Your task to perform on an android device: open chrome and create a bookmark for the current page Image 0: 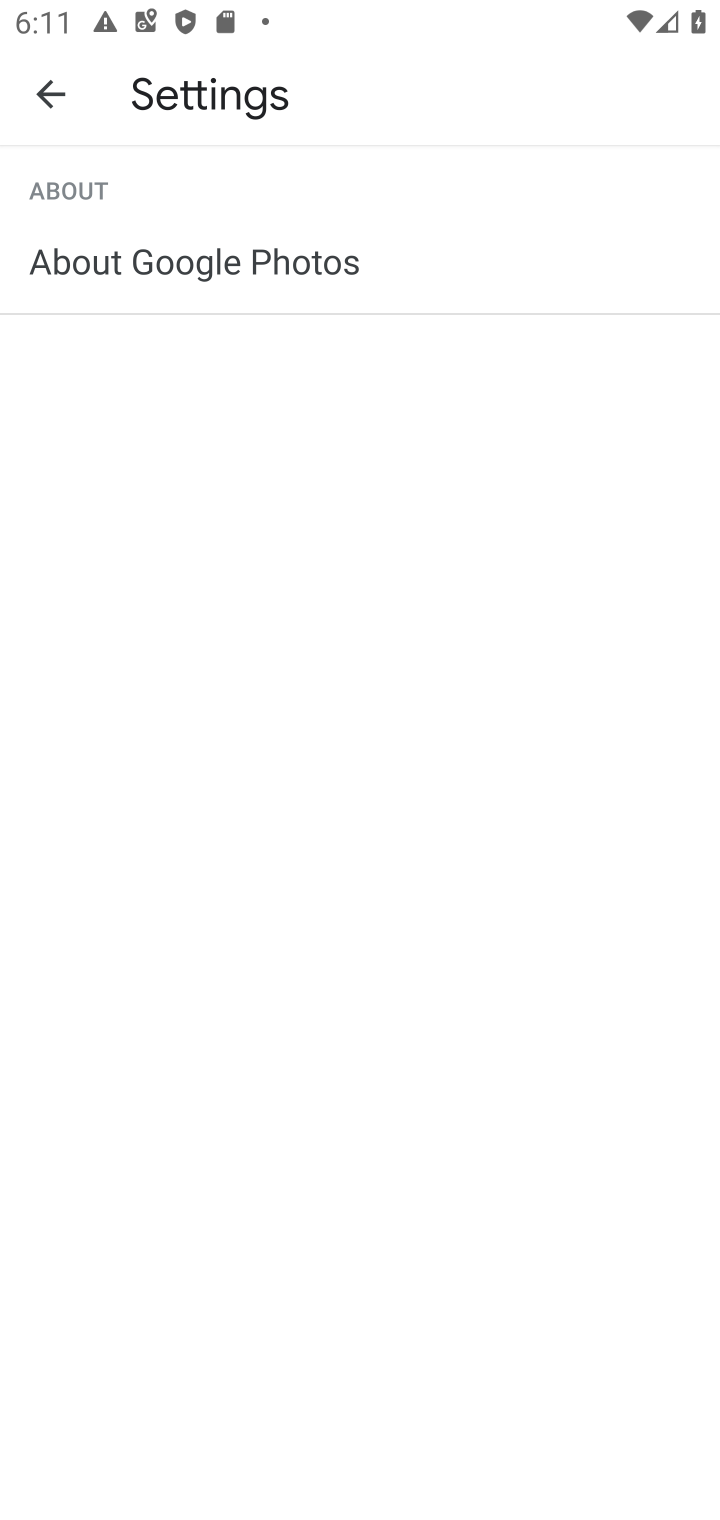
Step 0: press home button
Your task to perform on an android device: open chrome and create a bookmark for the current page Image 1: 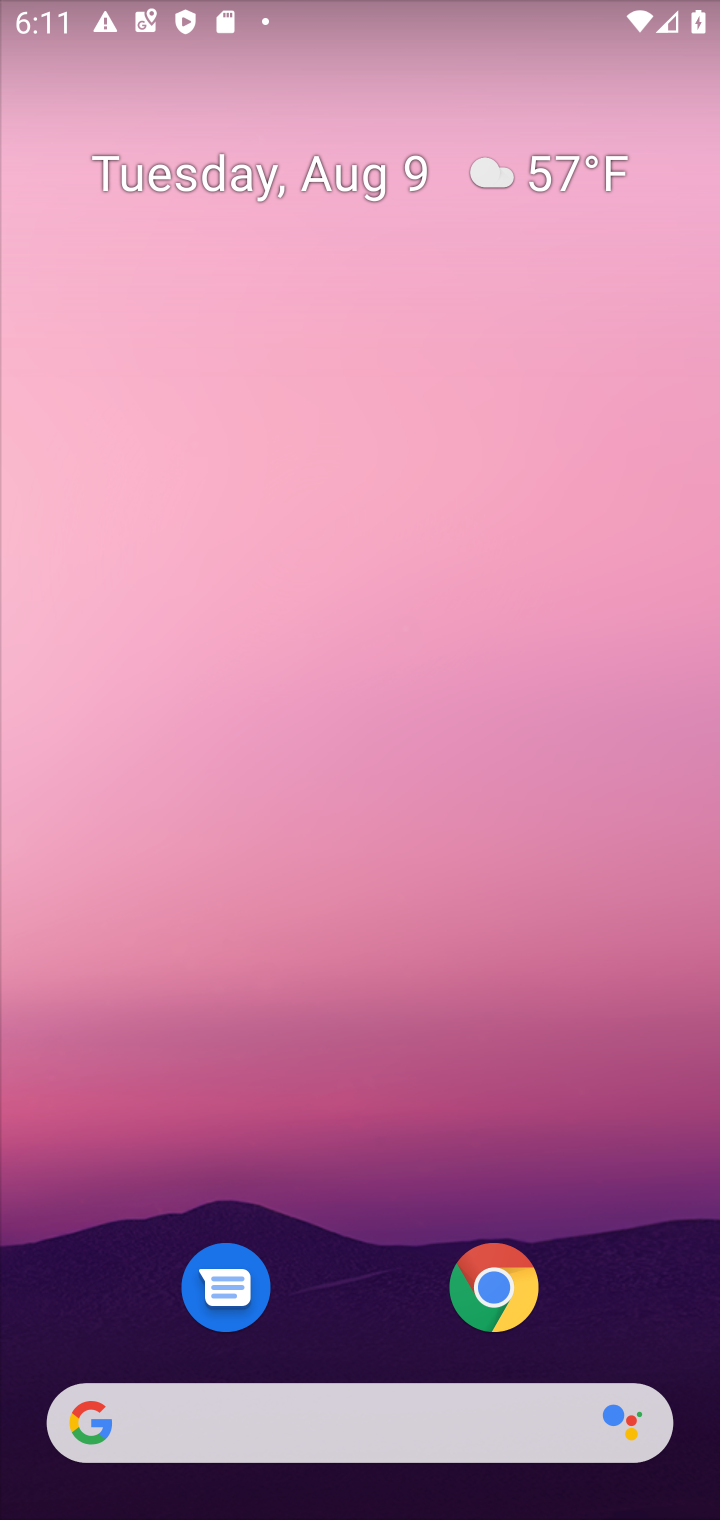
Step 1: task complete